Your task to perform on an android device: turn on sleep mode Image 0: 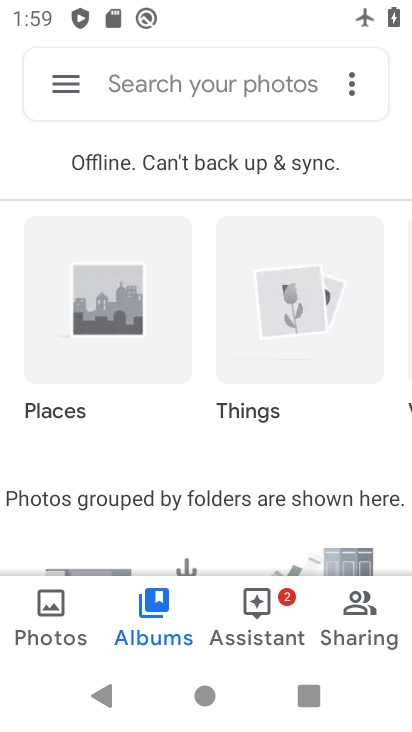
Step 0: press back button
Your task to perform on an android device: turn on sleep mode Image 1: 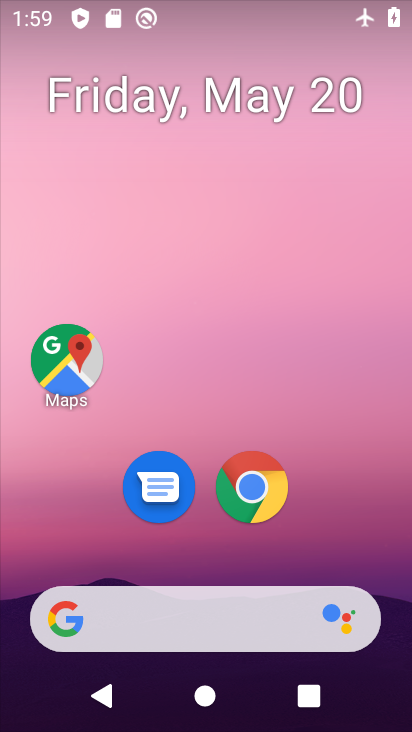
Step 1: drag from (275, 392) to (148, 58)
Your task to perform on an android device: turn on sleep mode Image 2: 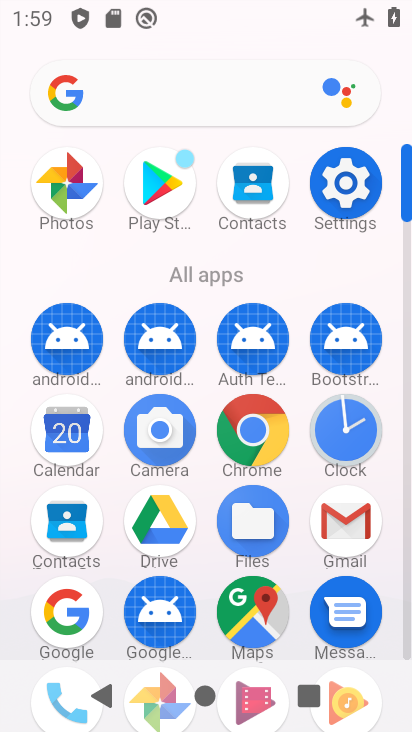
Step 2: click (345, 182)
Your task to perform on an android device: turn on sleep mode Image 3: 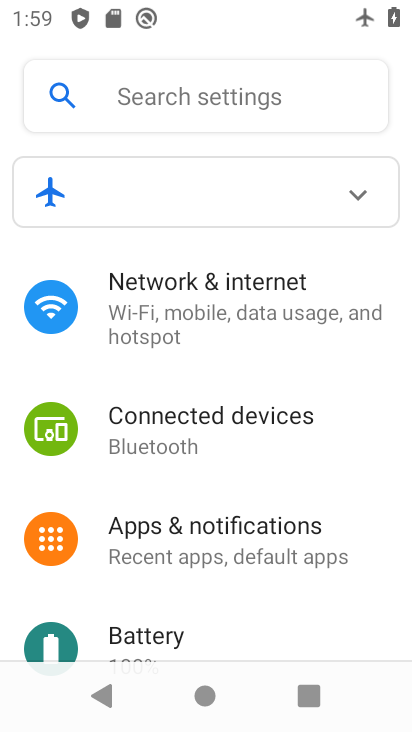
Step 3: click (264, 539)
Your task to perform on an android device: turn on sleep mode Image 4: 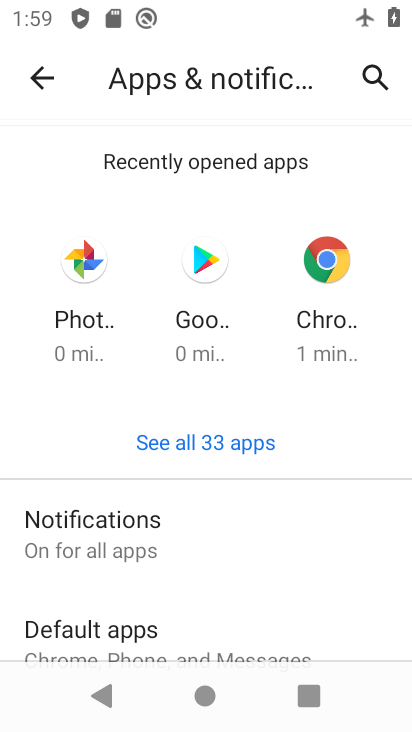
Step 4: drag from (214, 567) to (199, 80)
Your task to perform on an android device: turn on sleep mode Image 5: 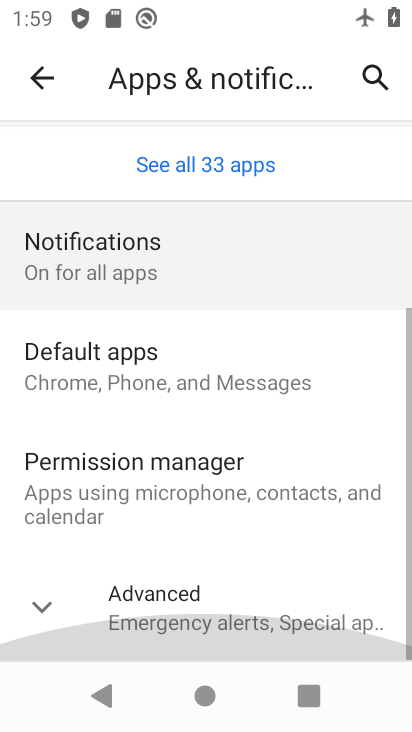
Step 5: drag from (266, 494) to (250, 122)
Your task to perform on an android device: turn on sleep mode Image 6: 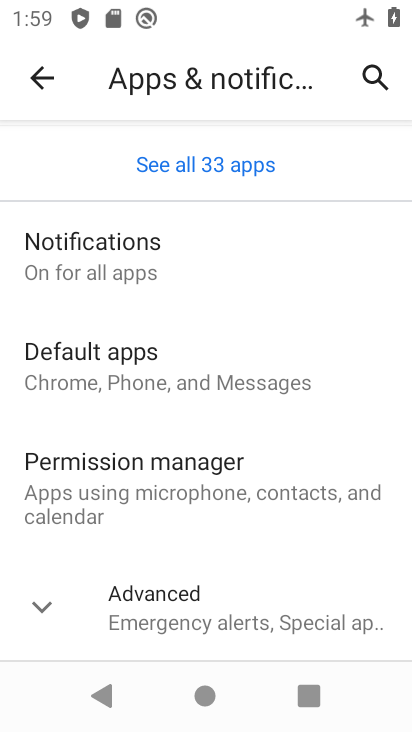
Step 6: click (37, 76)
Your task to perform on an android device: turn on sleep mode Image 7: 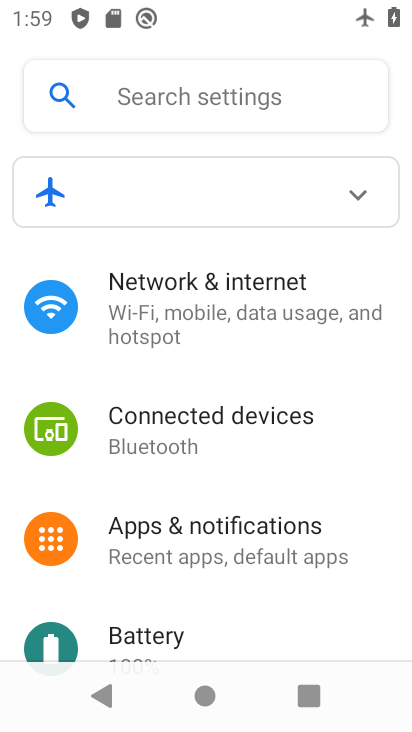
Step 7: drag from (233, 609) to (158, 258)
Your task to perform on an android device: turn on sleep mode Image 8: 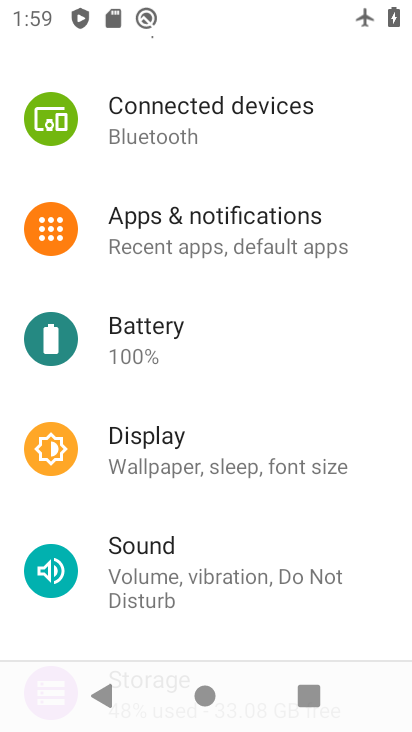
Step 8: drag from (249, 486) to (216, 104)
Your task to perform on an android device: turn on sleep mode Image 9: 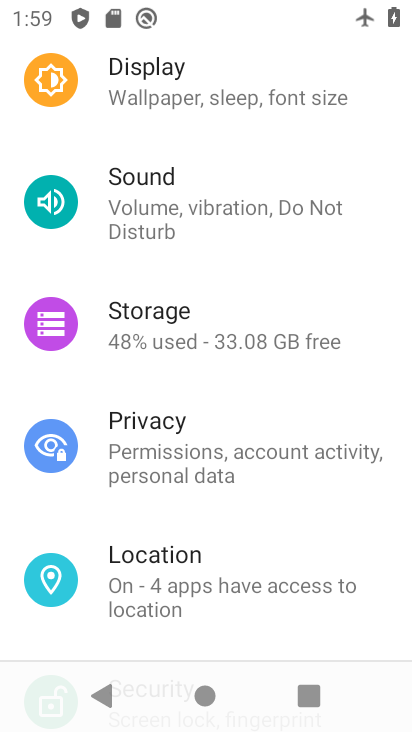
Step 9: drag from (297, 463) to (311, 111)
Your task to perform on an android device: turn on sleep mode Image 10: 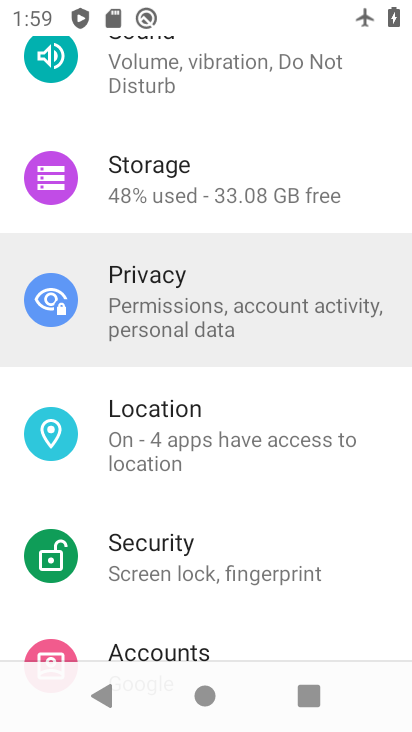
Step 10: drag from (228, 500) to (164, 64)
Your task to perform on an android device: turn on sleep mode Image 11: 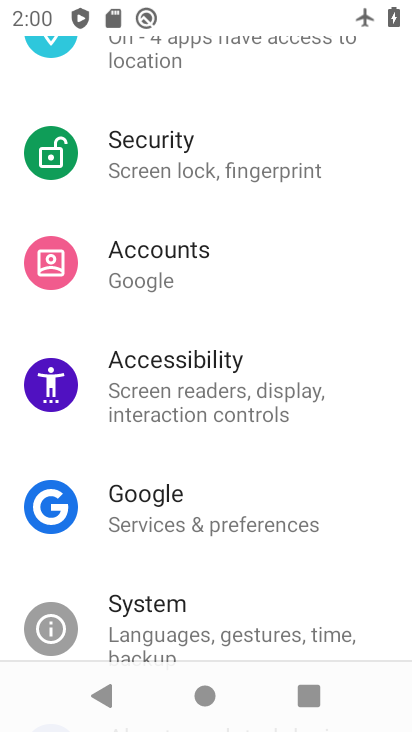
Step 11: drag from (165, 540) to (109, 288)
Your task to perform on an android device: turn on sleep mode Image 12: 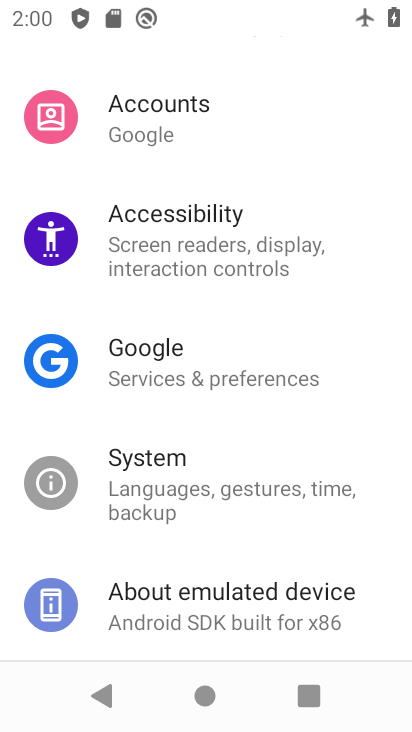
Step 12: drag from (159, 447) to (169, 183)
Your task to perform on an android device: turn on sleep mode Image 13: 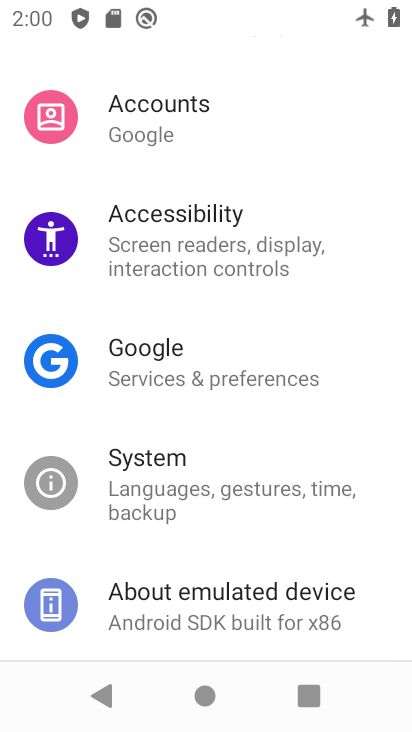
Step 13: drag from (171, 186) to (245, 540)
Your task to perform on an android device: turn on sleep mode Image 14: 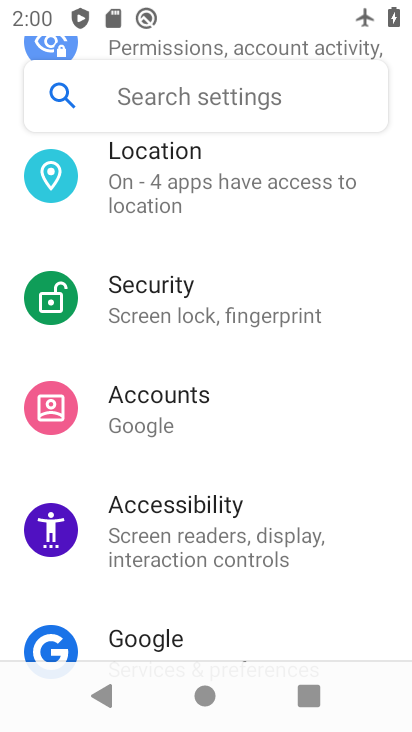
Step 14: drag from (199, 313) to (225, 581)
Your task to perform on an android device: turn on sleep mode Image 15: 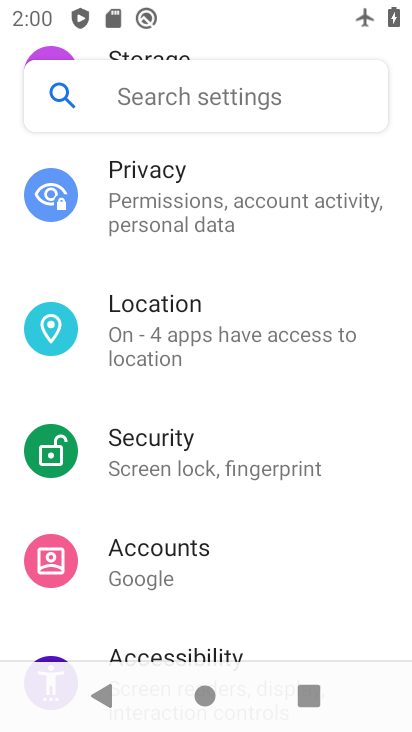
Step 15: drag from (150, 298) to (218, 596)
Your task to perform on an android device: turn on sleep mode Image 16: 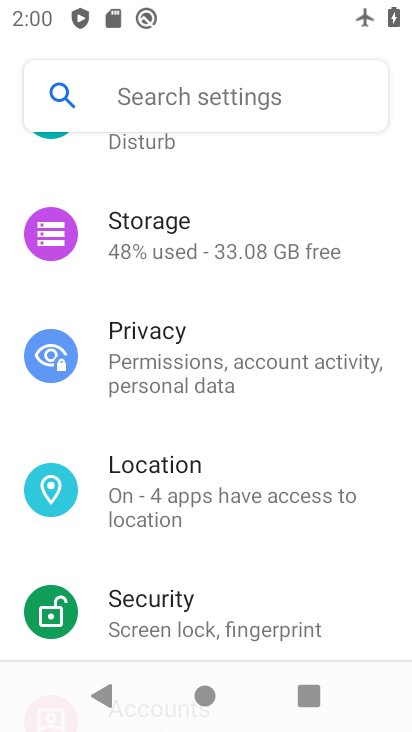
Step 16: drag from (173, 267) to (238, 608)
Your task to perform on an android device: turn on sleep mode Image 17: 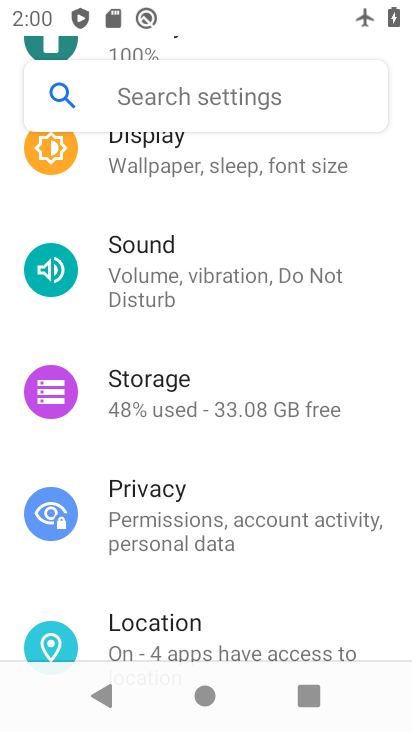
Step 17: click (163, 150)
Your task to perform on an android device: turn on sleep mode Image 18: 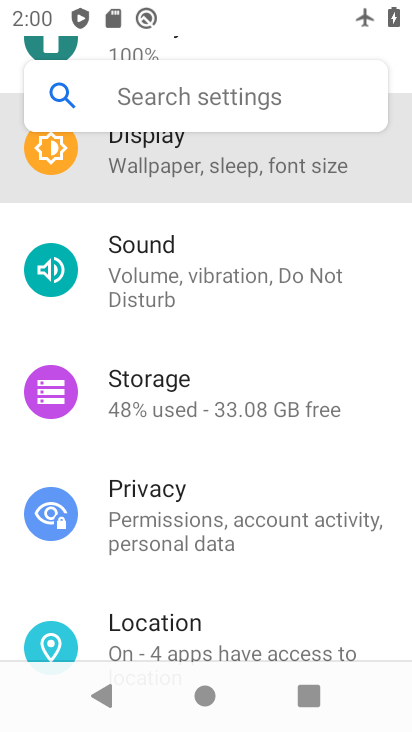
Step 18: click (163, 150)
Your task to perform on an android device: turn on sleep mode Image 19: 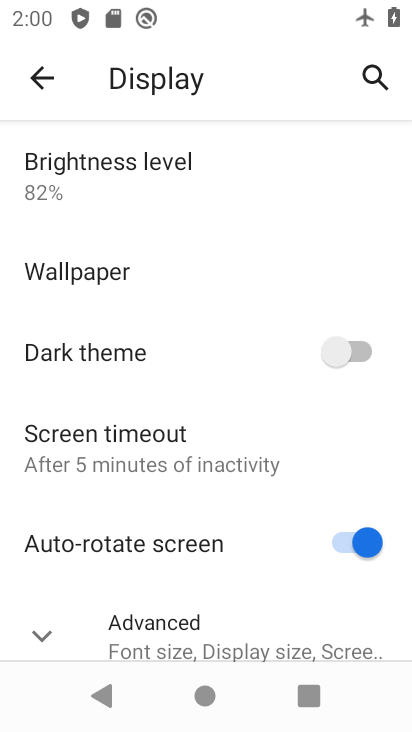
Step 19: task complete